Your task to perform on an android device: add a contact Image 0: 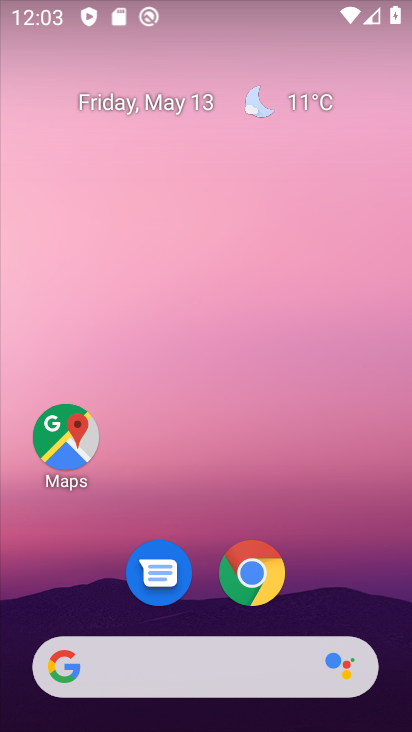
Step 0: drag from (222, 687) to (278, 172)
Your task to perform on an android device: add a contact Image 1: 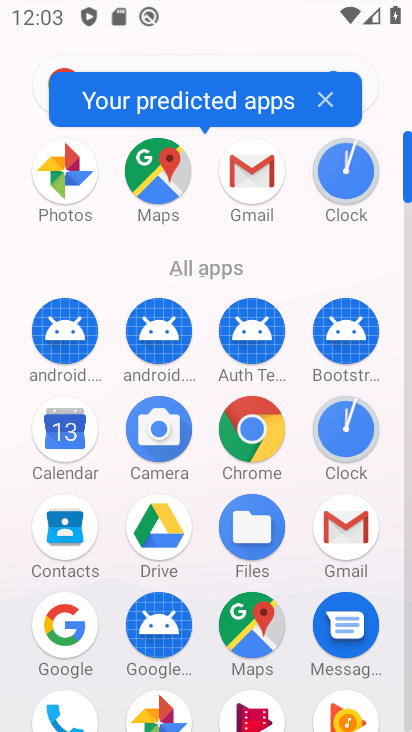
Step 1: click (75, 695)
Your task to perform on an android device: add a contact Image 2: 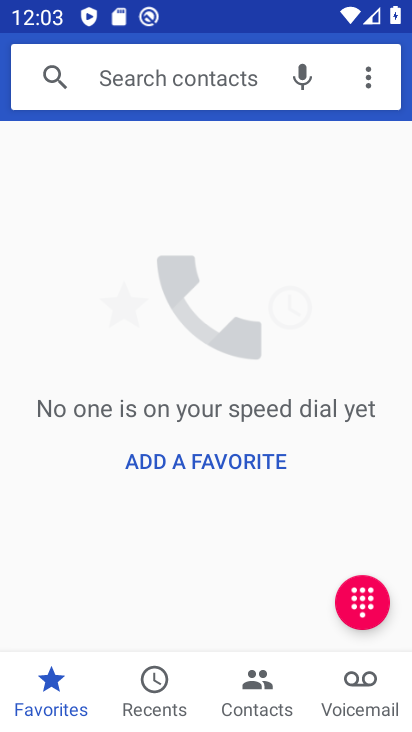
Step 2: click (246, 688)
Your task to perform on an android device: add a contact Image 3: 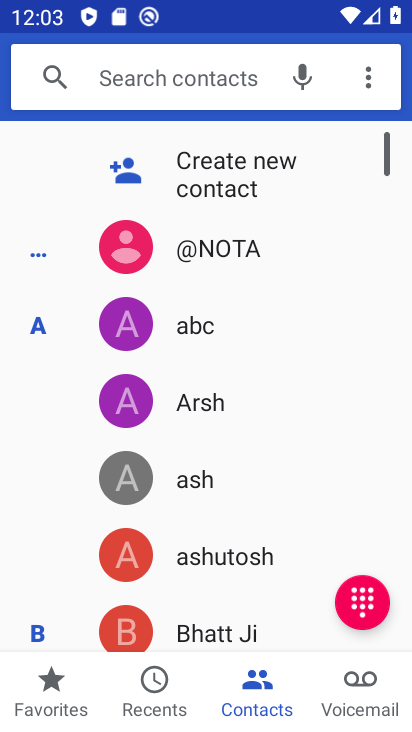
Step 3: click (211, 178)
Your task to perform on an android device: add a contact Image 4: 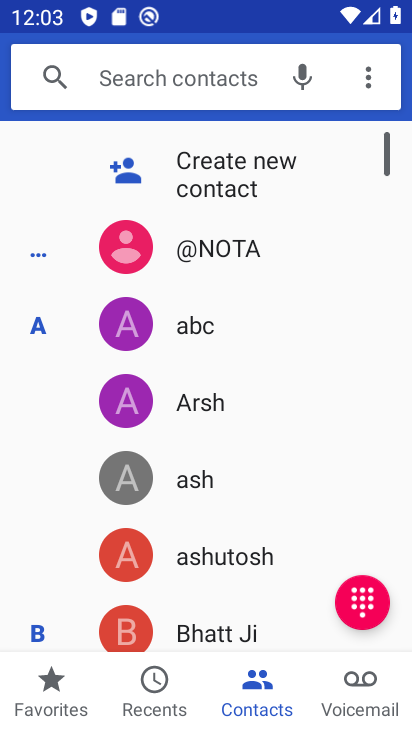
Step 4: click (199, 182)
Your task to perform on an android device: add a contact Image 5: 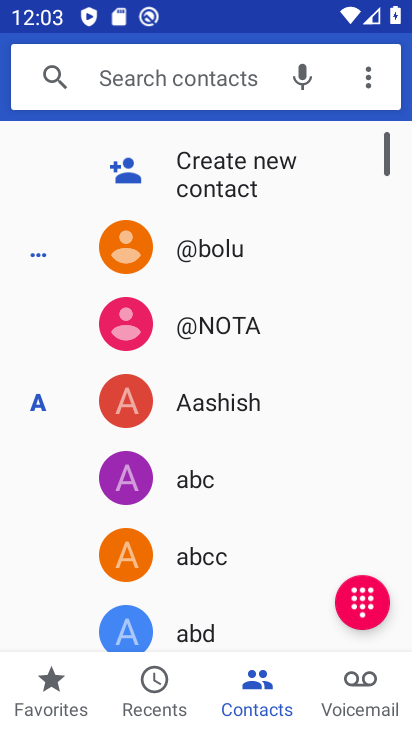
Step 5: click (172, 177)
Your task to perform on an android device: add a contact Image 6: 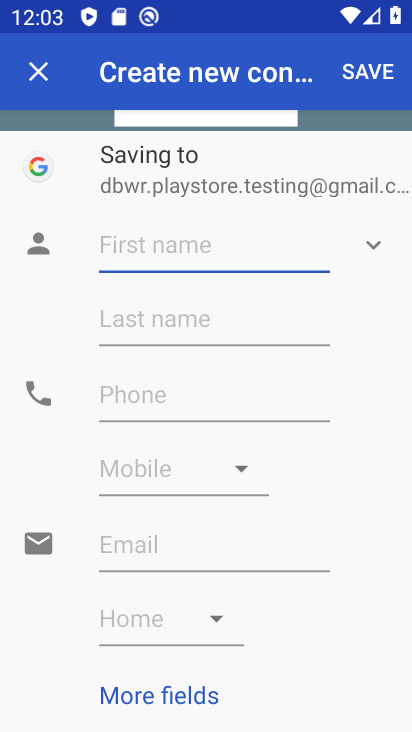
Step 6: click (150, 239)
Your task to perform on an android device: add a contact Image 7: 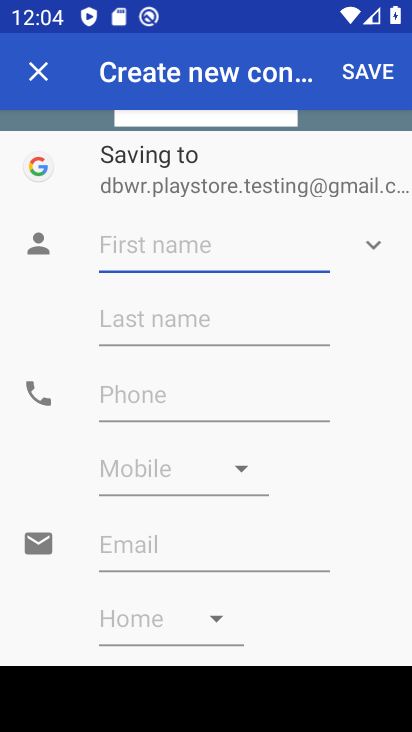
Step 7: drag from (365, 706) to (394, 623)
Your task to perform on an android device: add a contact Image 8: 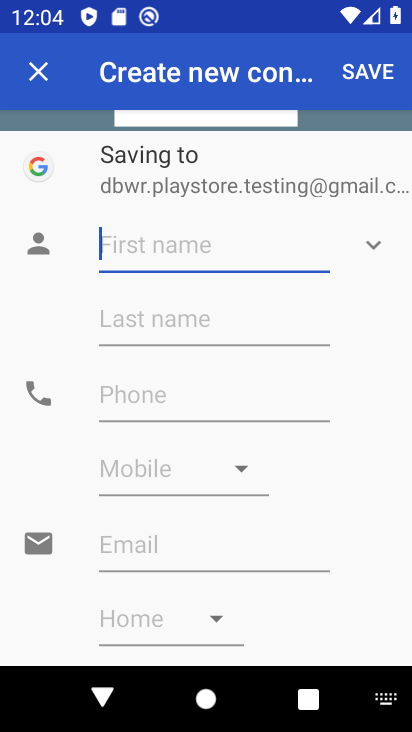
Step 8: click (390, 691)
Your task to perform on an android device: add a contact Image 9: 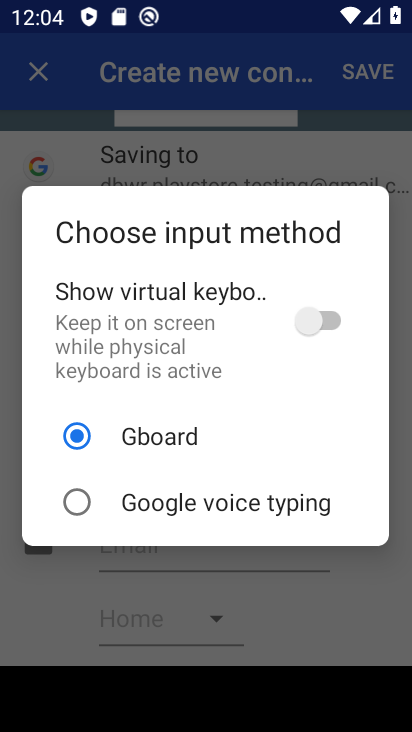
Step 9: click (340, 316)
Your task to perform on an android device: add a contact Image 10: 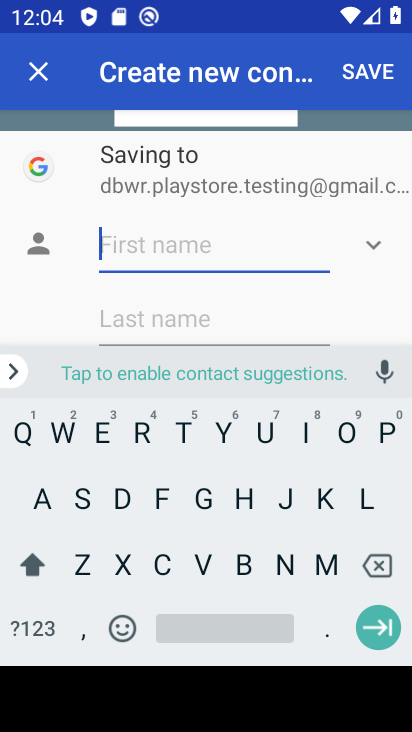
Step 10: click (164, 496)
Your task to perform on an android device: add a contact Image 11: 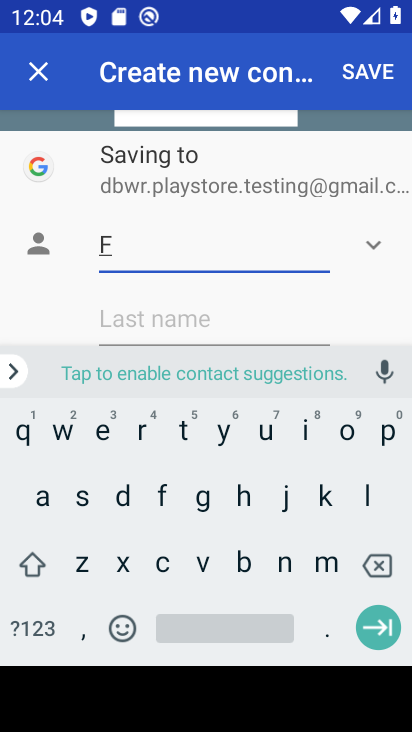
Step 11: click (84, 498)
Your task to perform on an android device: add a contact Image 12: 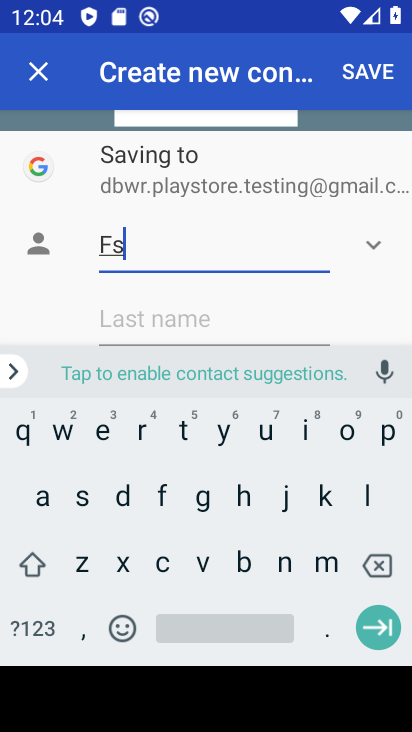
Step 12: click (108, 437)
Your task to perform on an android device: add a contact Image 13: 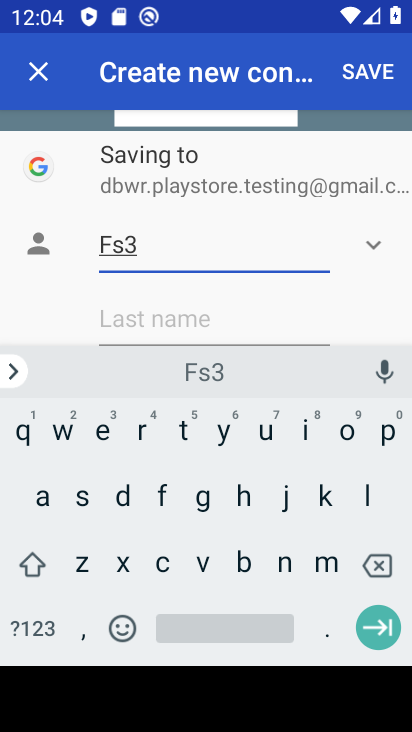
Step 13: drag from (206, 314) to (236, 211)
Your task to perform on an android device: add a contact Image 14: 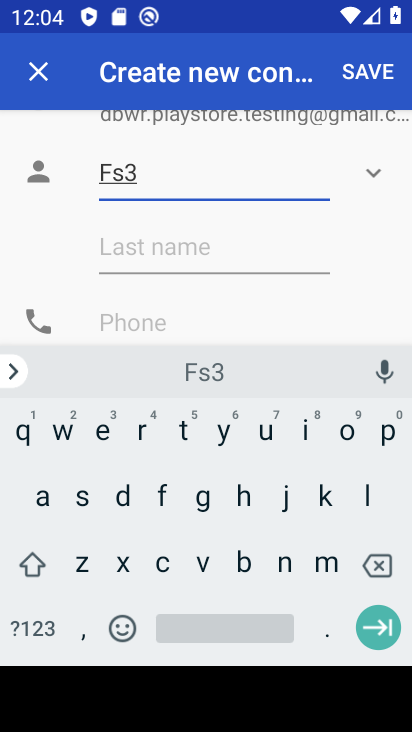
Step 14: click (167, 322)
Your task to perform on an android device: add a contact Image 15: 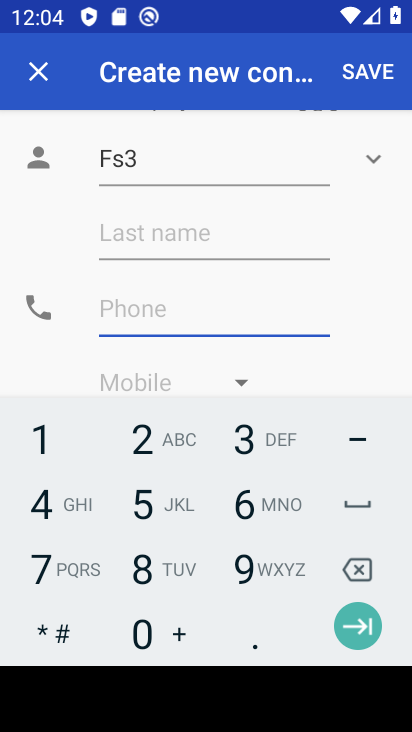
Step 15: click (128, 479)
Your task to perform on an android device: add a contact Image 16: 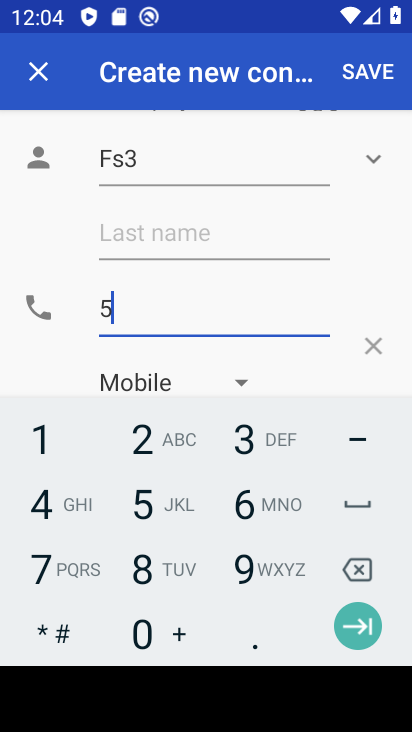
Step 16: click (68, 520)
Your task to perform on an android device: add a contact Image 17: 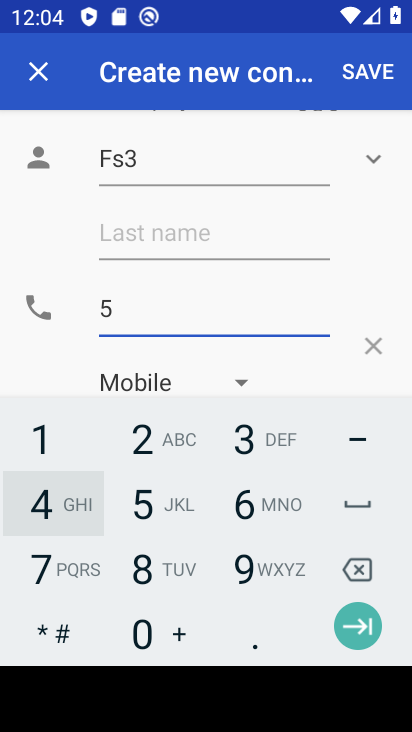
Step 17: click (64, 573)
Your task to perform on an android device: add a contact Image 18: 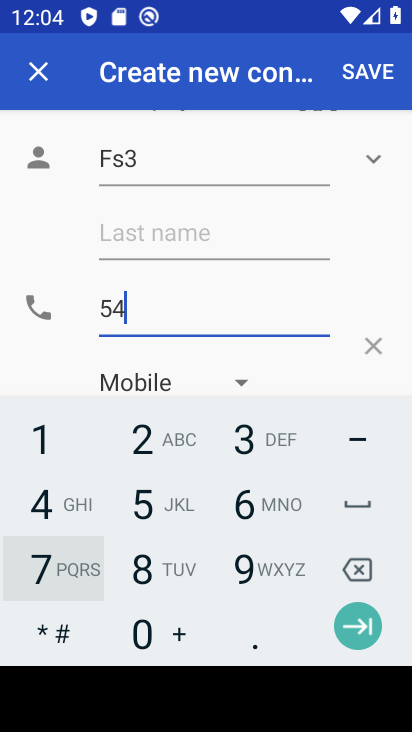
Step 18: click (163, 556)
Your task to perform on an android device: add a contact Image 19: 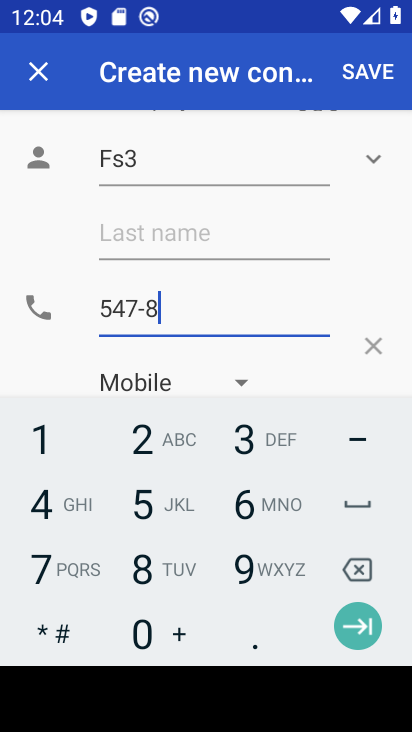
Step 19: click (284, 484)
Your task to perform on an android device: add a contact Image 20: 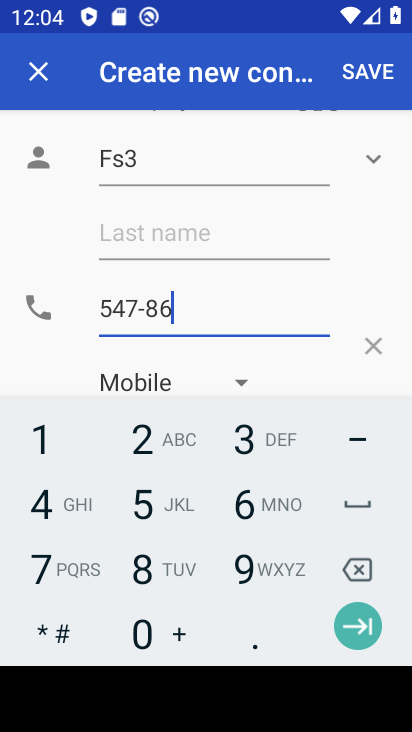
Step 20: click (116, 479)
Your task to perform on an android device: add a contact Image 21: 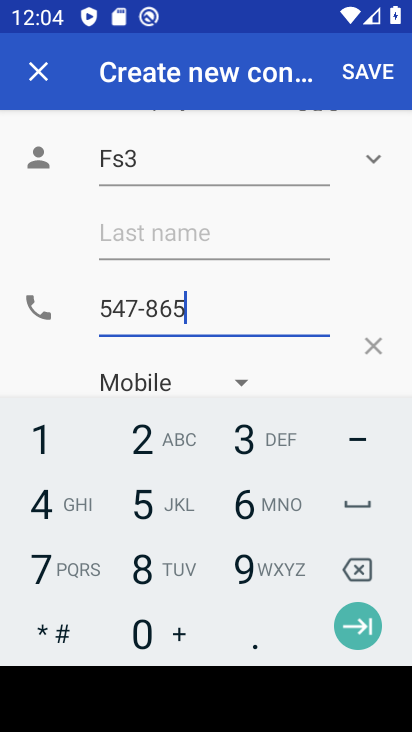
Step 21: click (57, 500)
Your task to perform on an android device: add a contact Image 22: 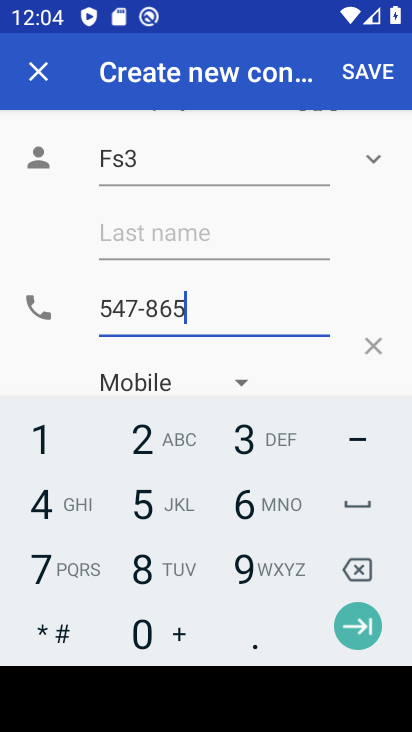
Step 22: click (88, 616)
Your task to perform on an android device: add a contact Image 23: 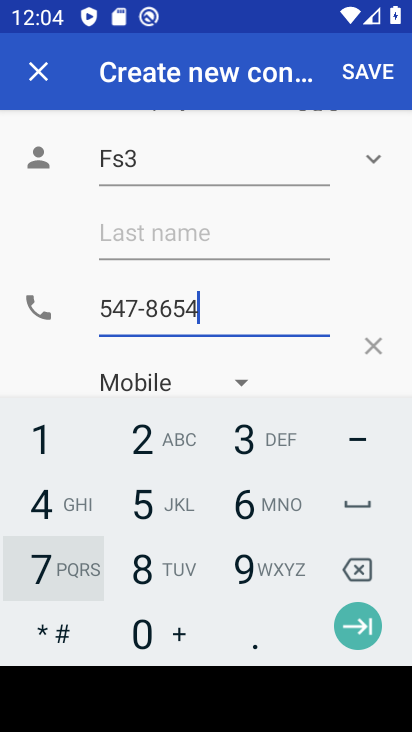
Step 23: click (142, 561)
Your task to perform on an android device: add a contact Image 24: 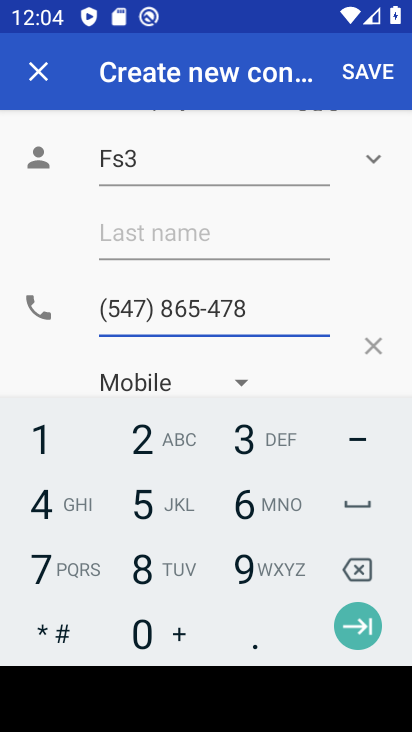
Step 24: click (381, 74)
Your task to perform on an android device: add a contact Image 25: 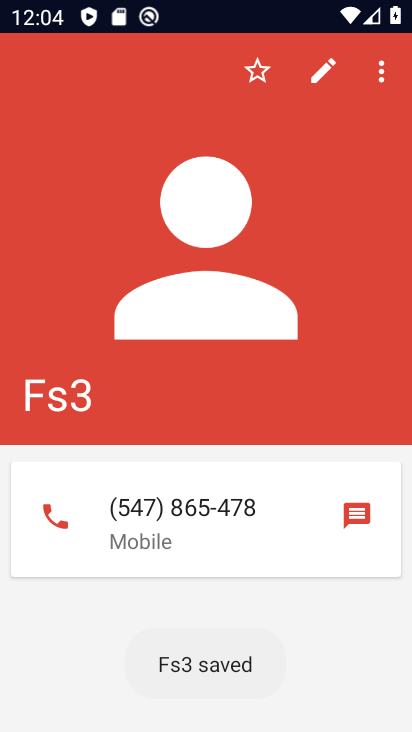
Step 25: task complete